Your task to perform on an android device: search for starred emails in the gmail app Image 0: 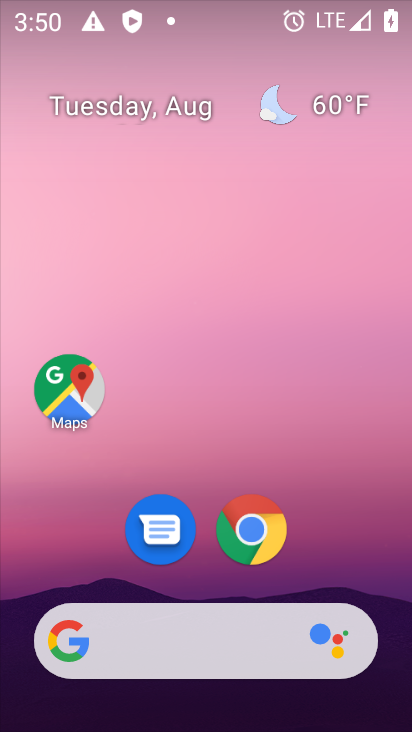
Step 0: drag from (352, 540) to (310, 150)
Your task to perform on an android device: search for starred emails in the gmail app Image 1: 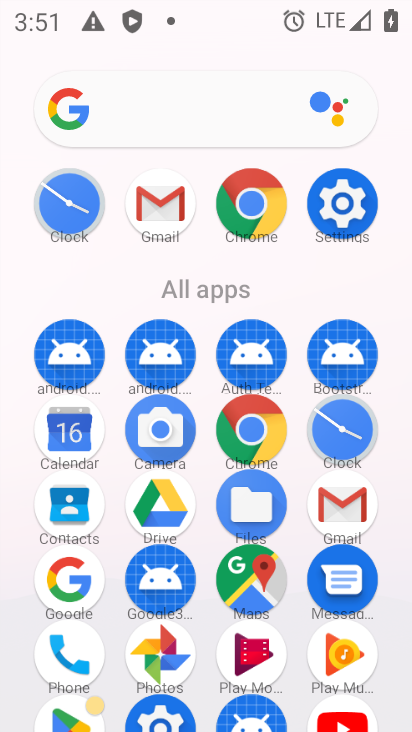
Step 1: click (331, 513)
Your task to perform on an android device: search for starred emails in the gmail app Image 2: 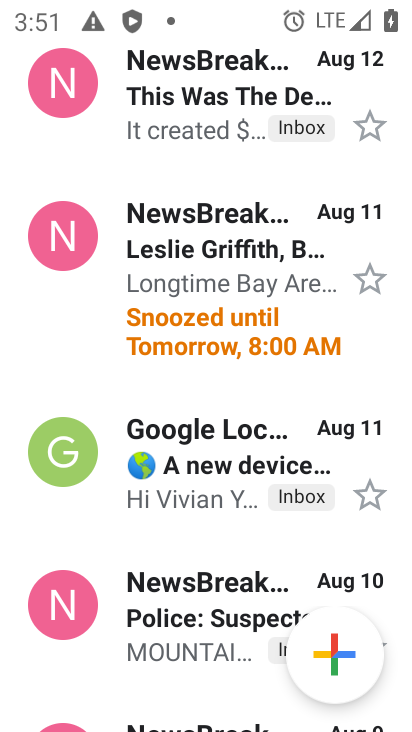
Step 2: drag from (139, 142) to (173, 529)
Your task to perform on an android device: search for starred emails in the gmail app Image 3: 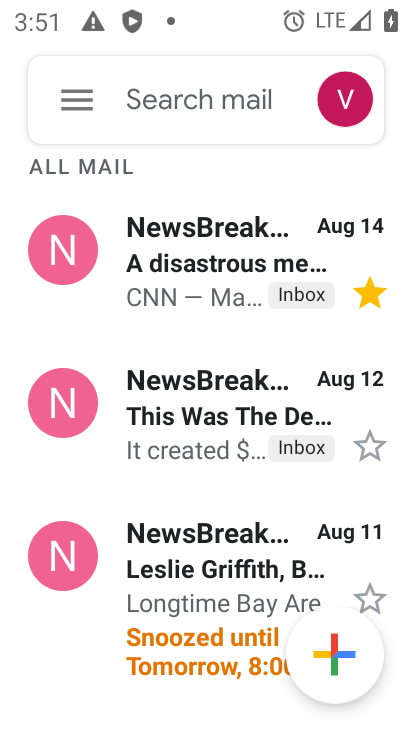
Step 3: click (76, 115)
Your task to perform on an android device: search for starred emails in the gmail app Image 4: 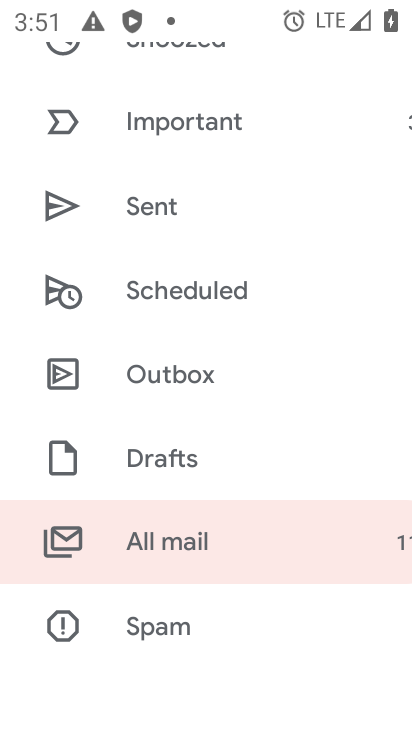
Step 4: drag from (201, 274) to (225, 583)
Your task to perform on an android device: search for starred emails in the gmail app Image 5: 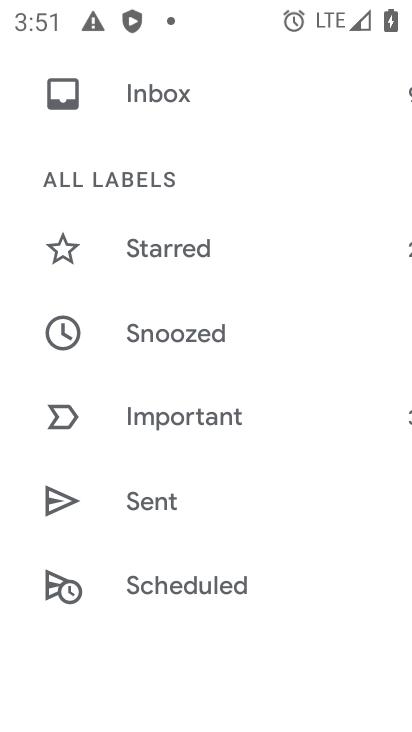
Step 5: click (166, 254)
Your task to perform on an android device: search for starred emails in the gmail app Image 6: 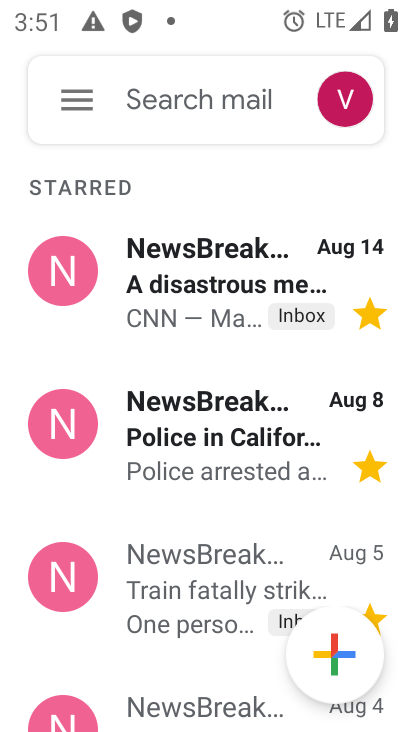
Step 6: task complete